Your task to perform on an android device: snooze an email in the gmail app Image 0: 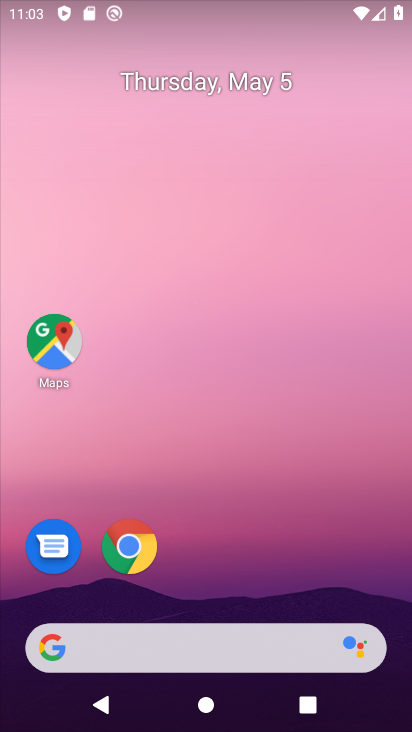
Step 0: drag from (215, 590) to (137, 8)
Your task to perform on an android device: snooze an email in the gmail app Image 1: 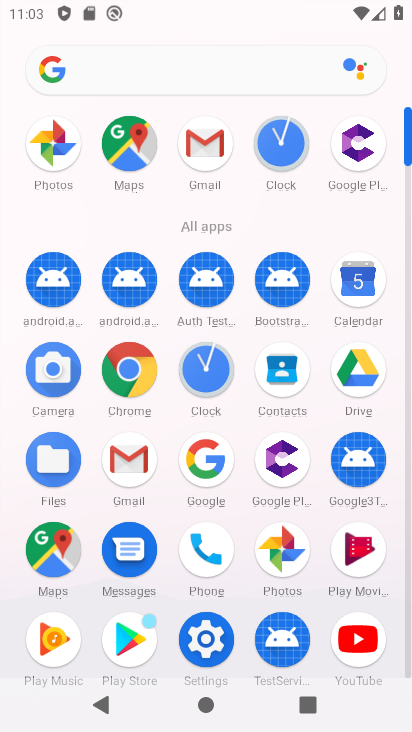
Step 1: click (134, 463)
Your task to perform on an android device: snooze an email in the gmail app Image 2: 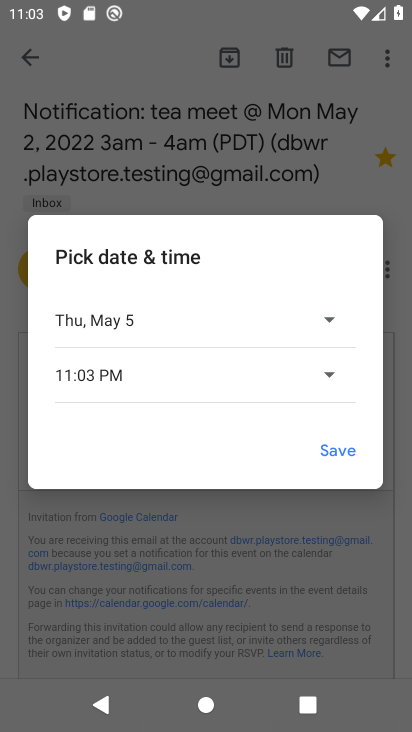
Step 2: click (337, 443)
Your task to perform on an android device: snooze an email in the gmail app Image 3: 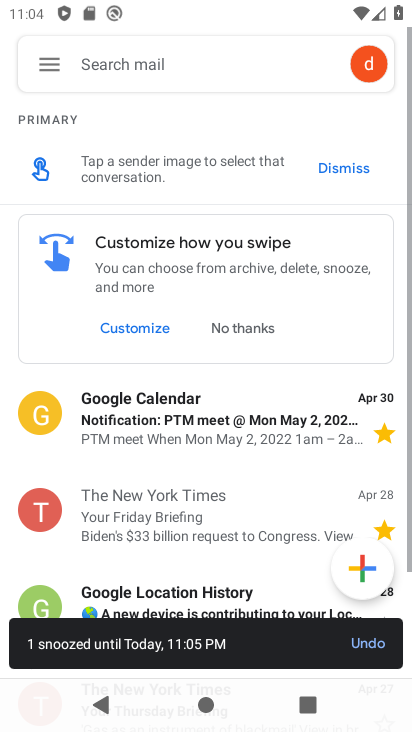
Step 3: click (292, 437)
Your task to perform on an android device: snooze an email in the gmail app Image 4: 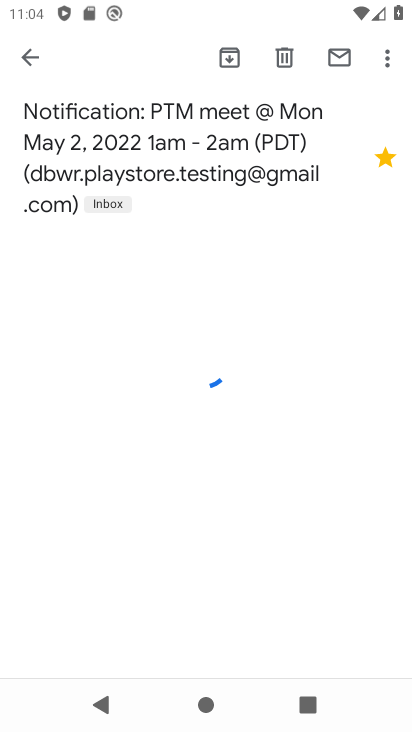
Step 4: click (387, 53)
Your task to perform on an android device: snooze an email in the gmail app Image 5: 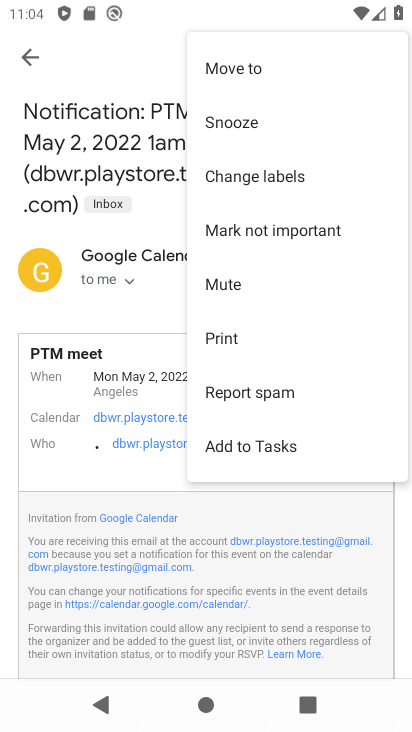
Step 5: click (244, 128)
Your task to perform on an android device: snooze an email in the gmail app Image 6: 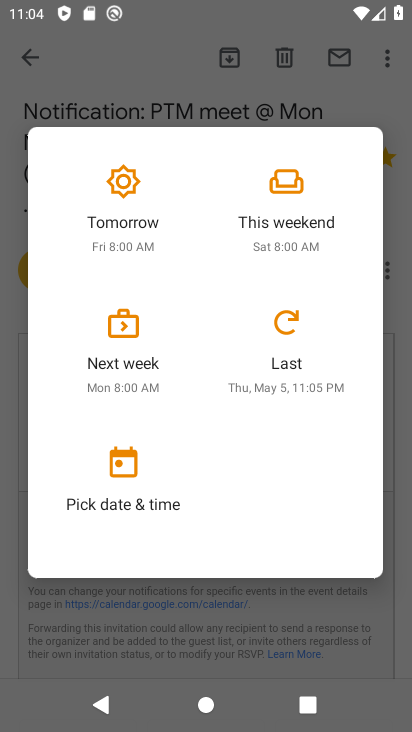
Step 6: click (285, 195)
Your task to perform on an android device: snooze an email in the gmail app Image 7: 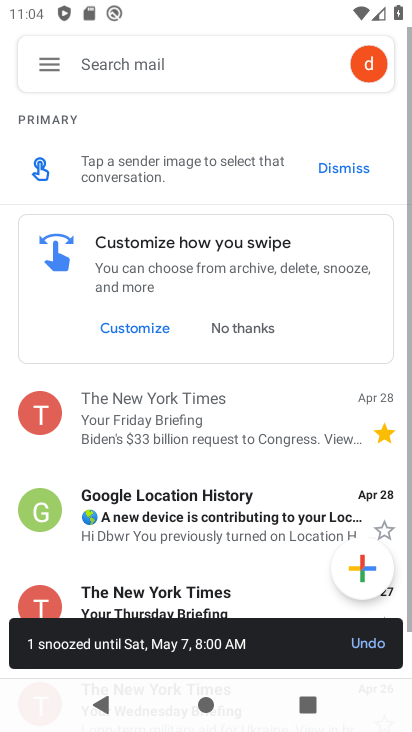
Step 7: task complete